Your task to perform on an android device: Open the stopwatch Image 0: 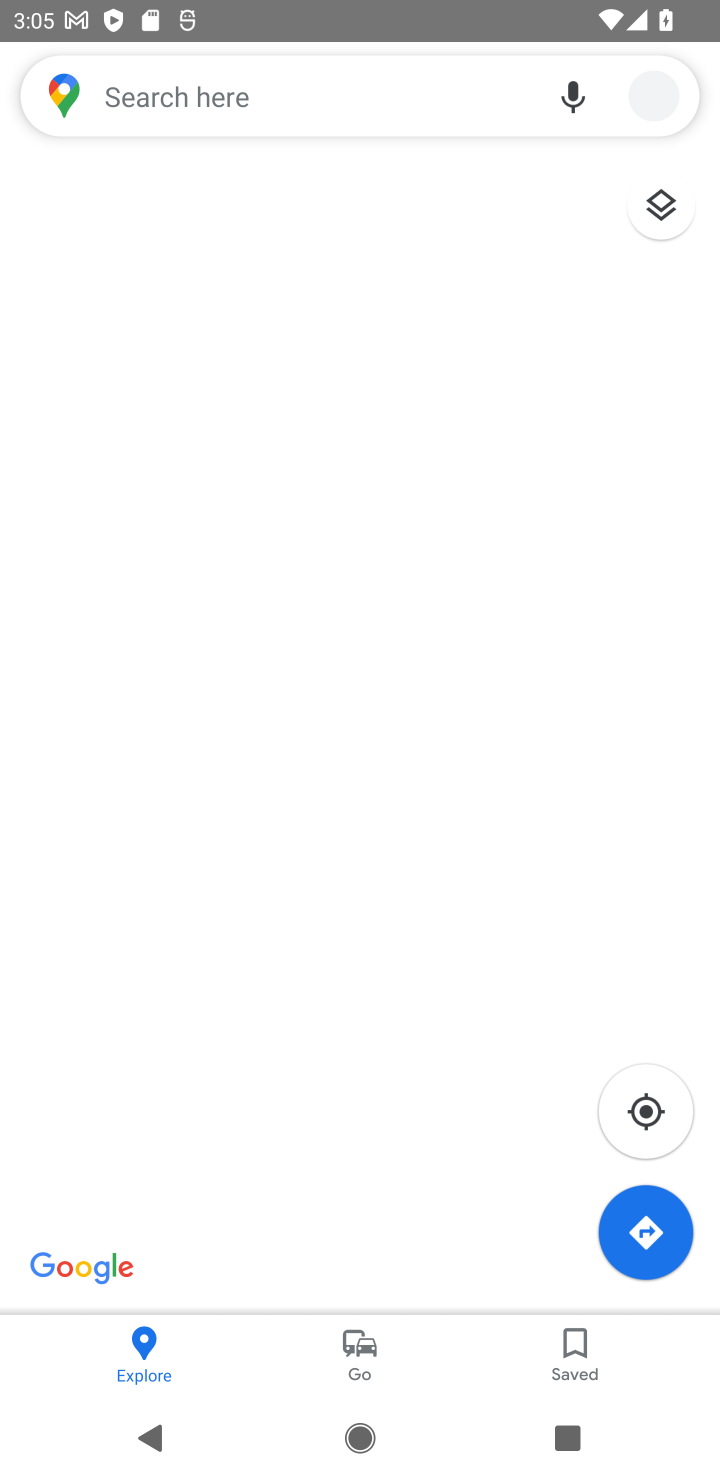
Step 0: press home button
Your task to perform on an android device: Open the stopwatch Image 1: 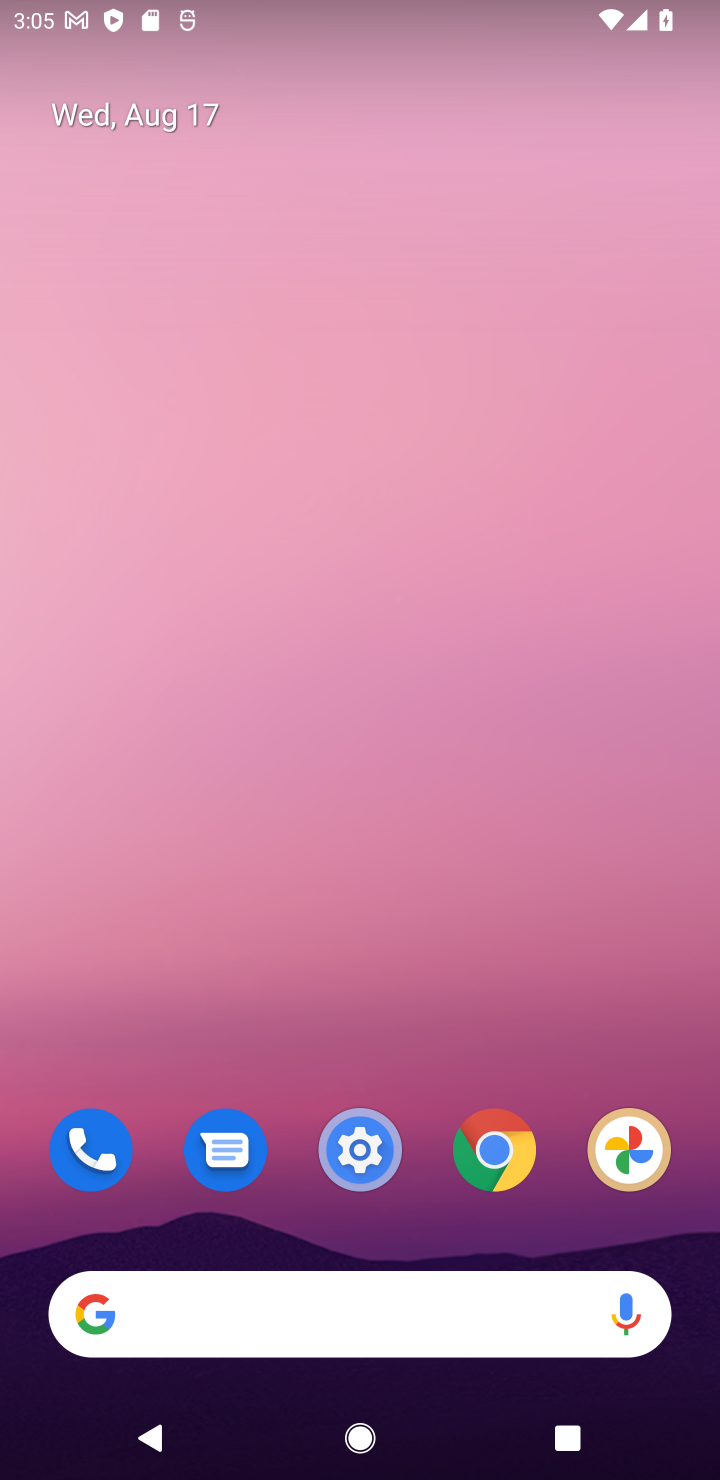
Step 1: drag from (565, 1213) to (127, 75)
Your task to perform on an android device: Open the stopwatch Image 2: 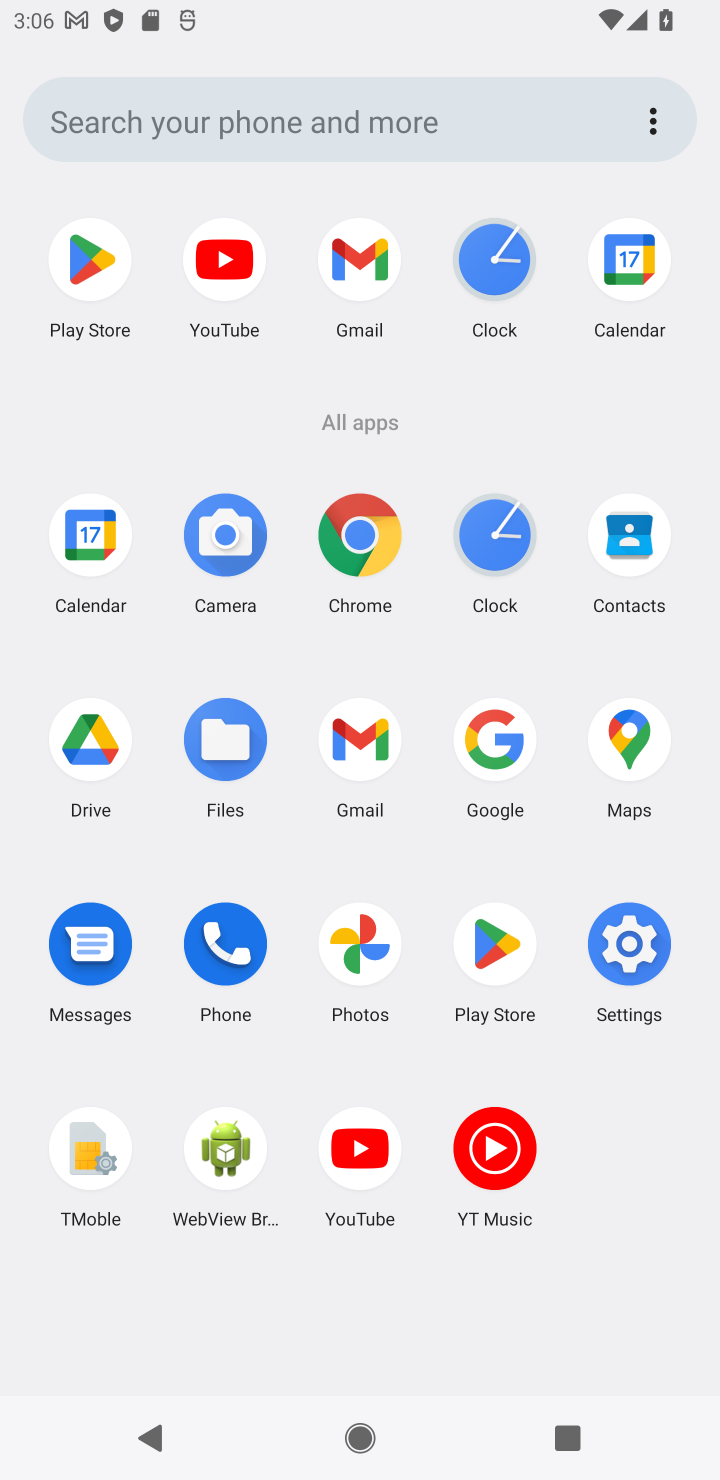
Step 2: click (524, 538)
Your task to perform on an android device: Open the stopwatch Image 3: 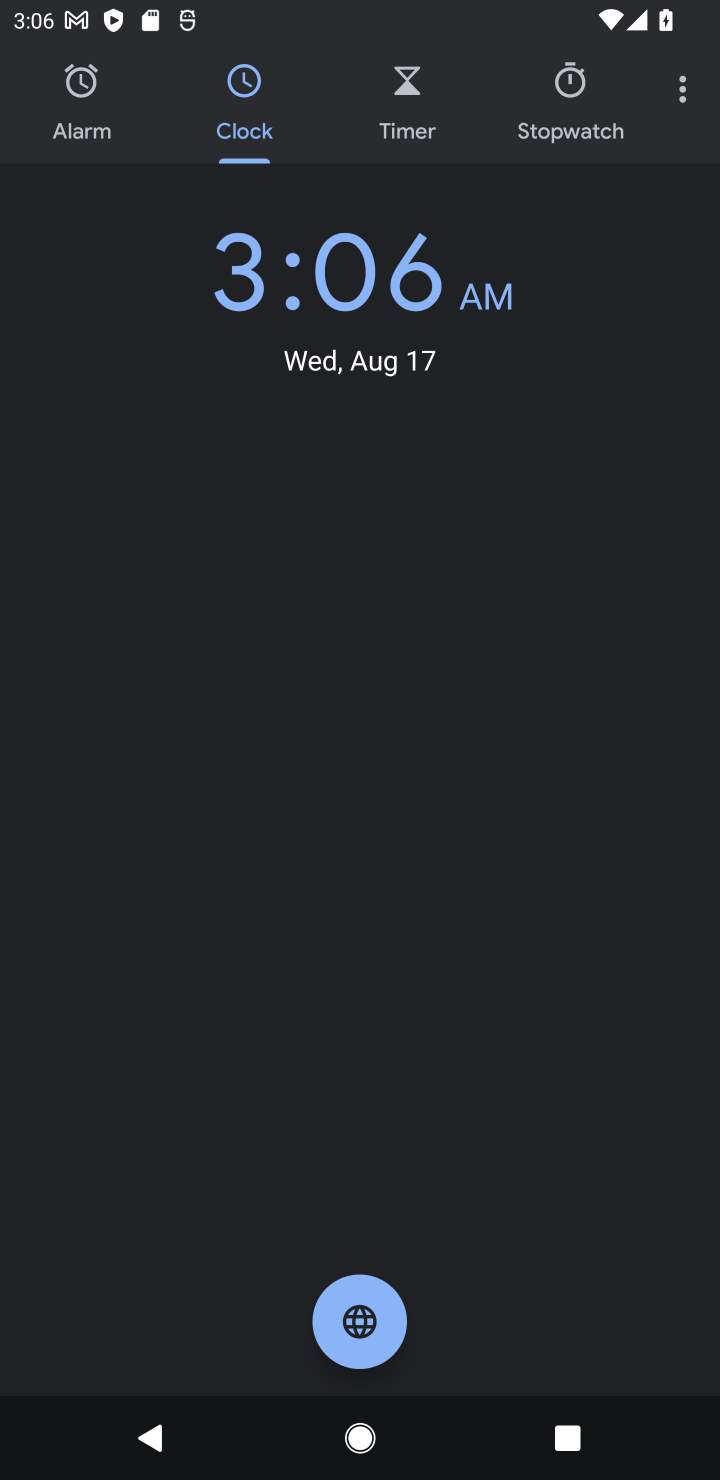
Step 3: click (575, 100)
Your task to perform on an android device: Open the stopwatch Image 4: 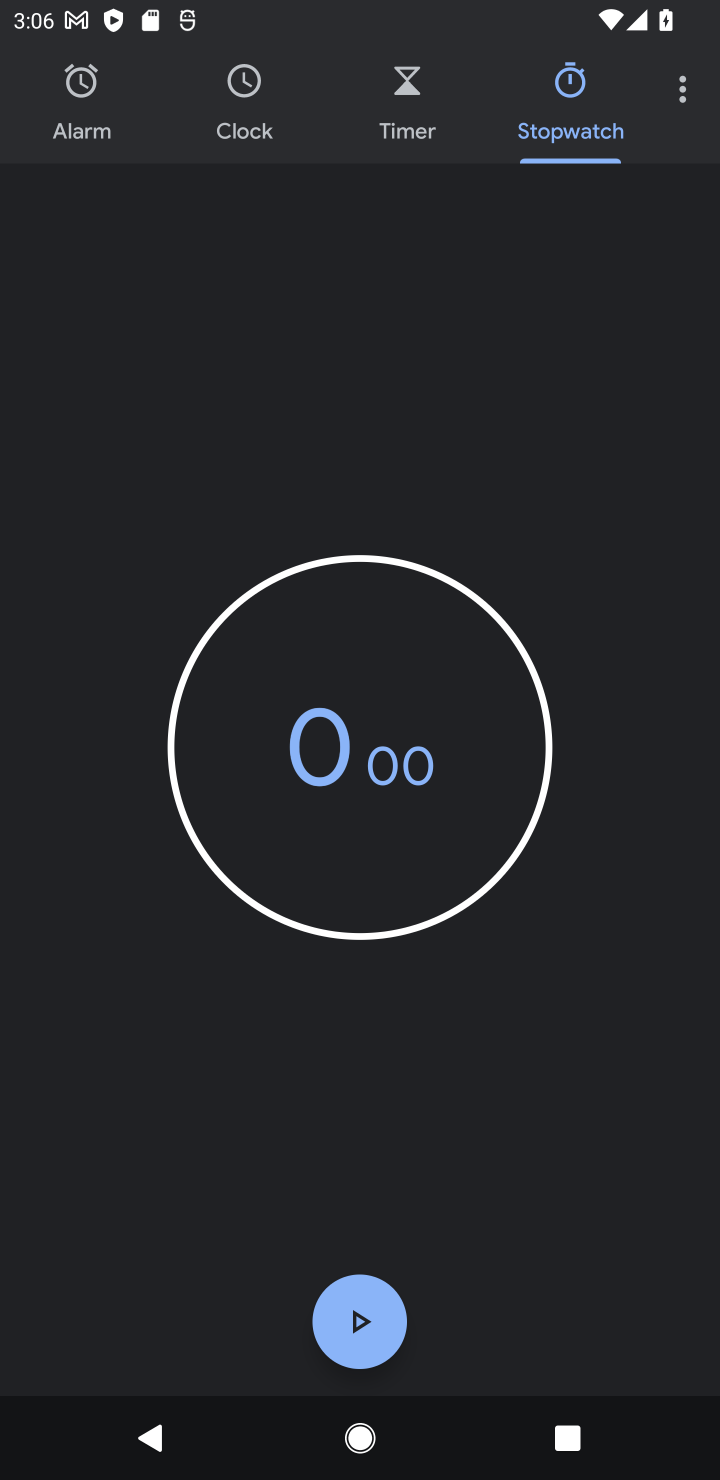
Step 4: task complete